Your task to perform on an android device: turn on notifications settings in the gmail app Image 0: 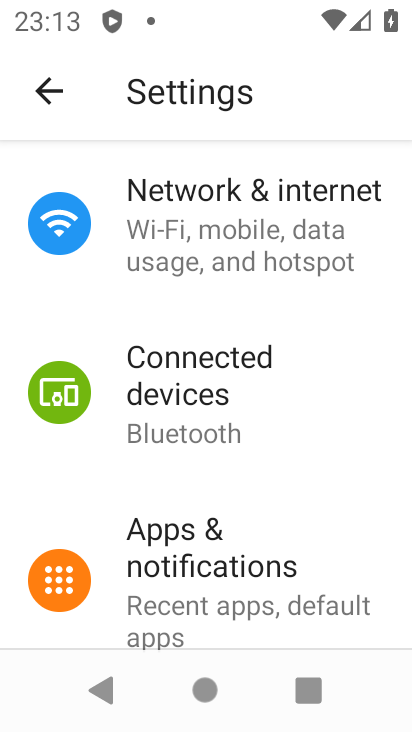
Step 0: drag from (148, 587) to (246, 220)
Your task to perform on an android device: turn on notifications settings in the gmail app Image 1: 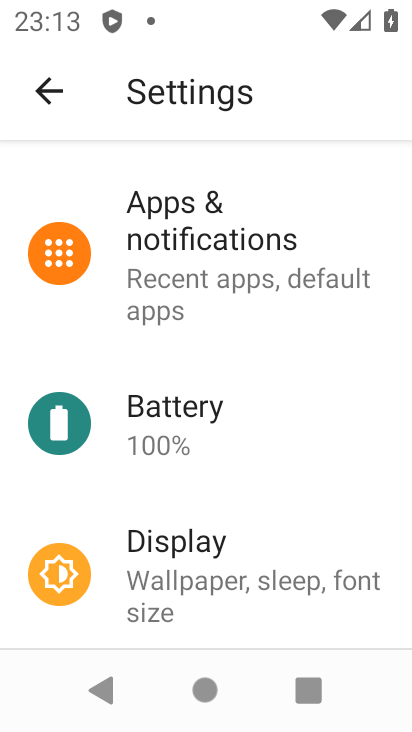
Step 1: drag from (229, 575) to (264, 279)
Your task to perform on an android device: turn on notifications settings in the gmail app Image 2: 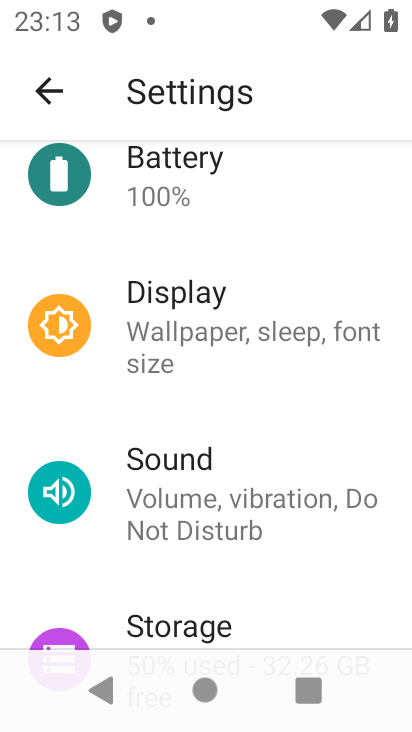
Step 2: drag from (218, 561) to (265, 724)
Your task to perform on an android device: turn on notifications settings in the gmail app Image 3: 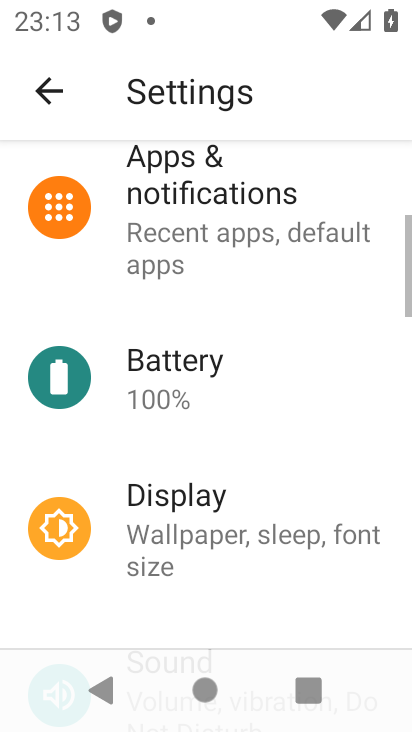
Step 3: drag from (229, 256) to (199, 616)
Your task to perform on an android device: turn on notifications settings in the gmail app Image 4: 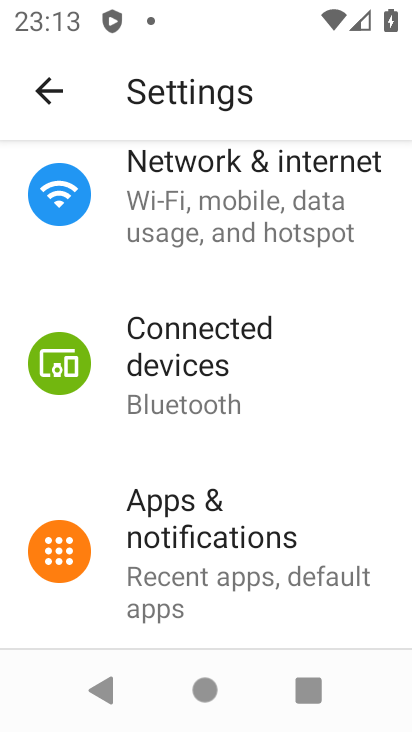
Step 4: click (174, 510)
Your task to perform on an android device: turn on notifications settings in the gmail app Image 5: 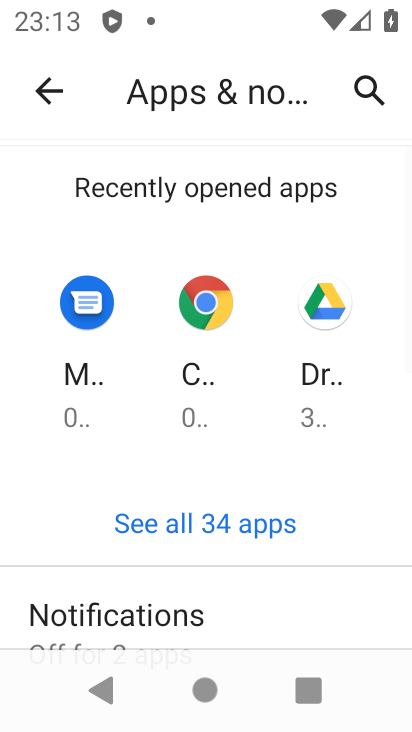
Step 5: drag from (206, 512) to (278, 136)
Your task to perform on an android device: turn on notifications settings in the gmail app Image 6: 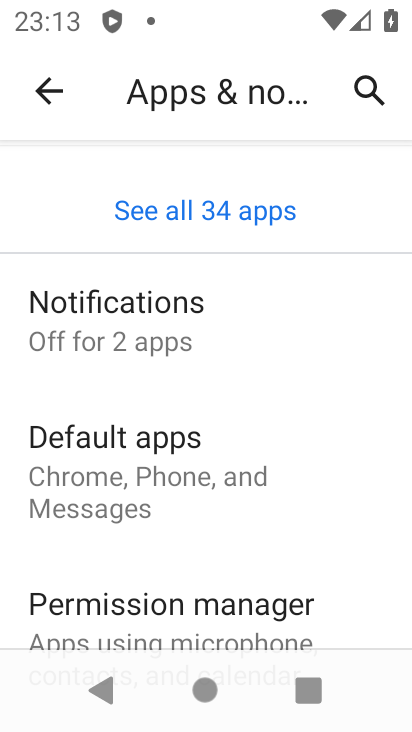
Step 6: click (179, 338)
Your task to perform on an android device: turn on notifications settings in the gmail app Image 7: 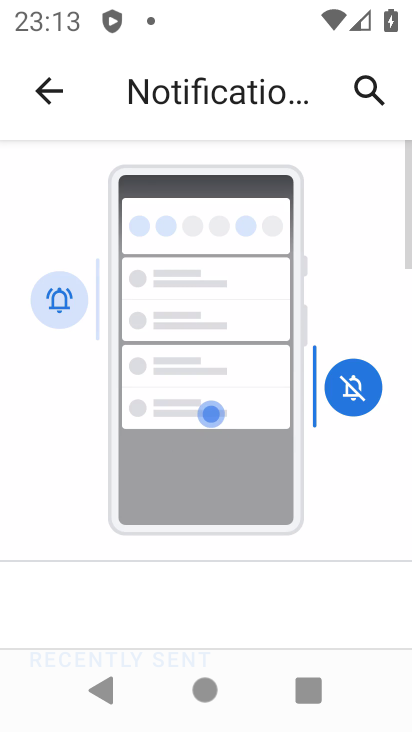
Step 7: drag from (273, 499) to (334, 75)
Your task to perform on an android device: turn on notifications settings in the gmail app Image 8: 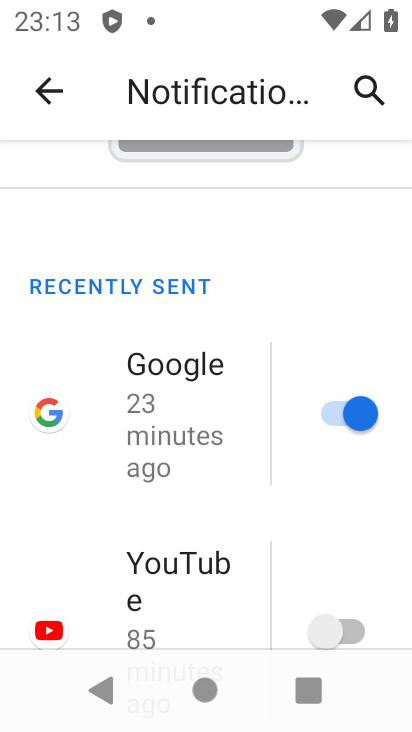
Step 8: drag from (313, 571) to (334, 312)
Your task to perform on an android device: turn on notifications settings in the gmail app Image 9: 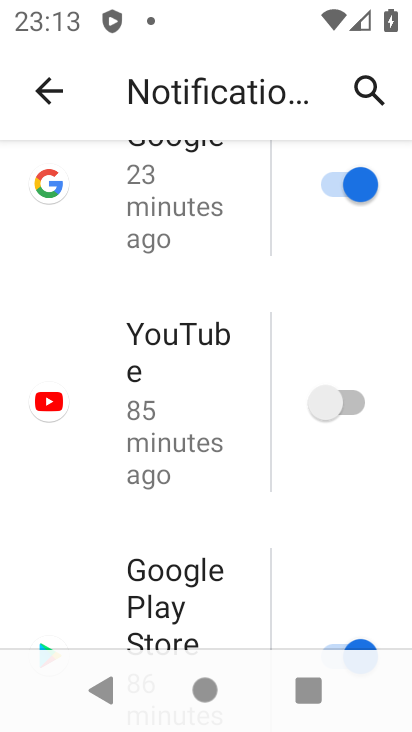
Step 9: click (322, 390)
Your task to perform on an android device: turn on notifications settings in the gmail app Image 10: 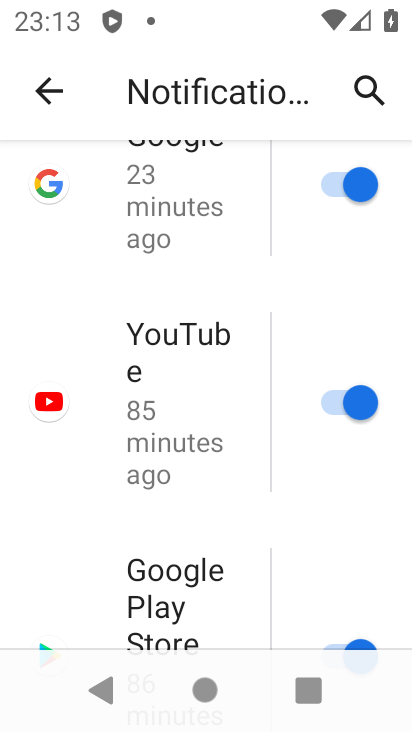
Step 10: task complete